Your task to perform on an android device: make emails show in primary in the gmail app Image 0: 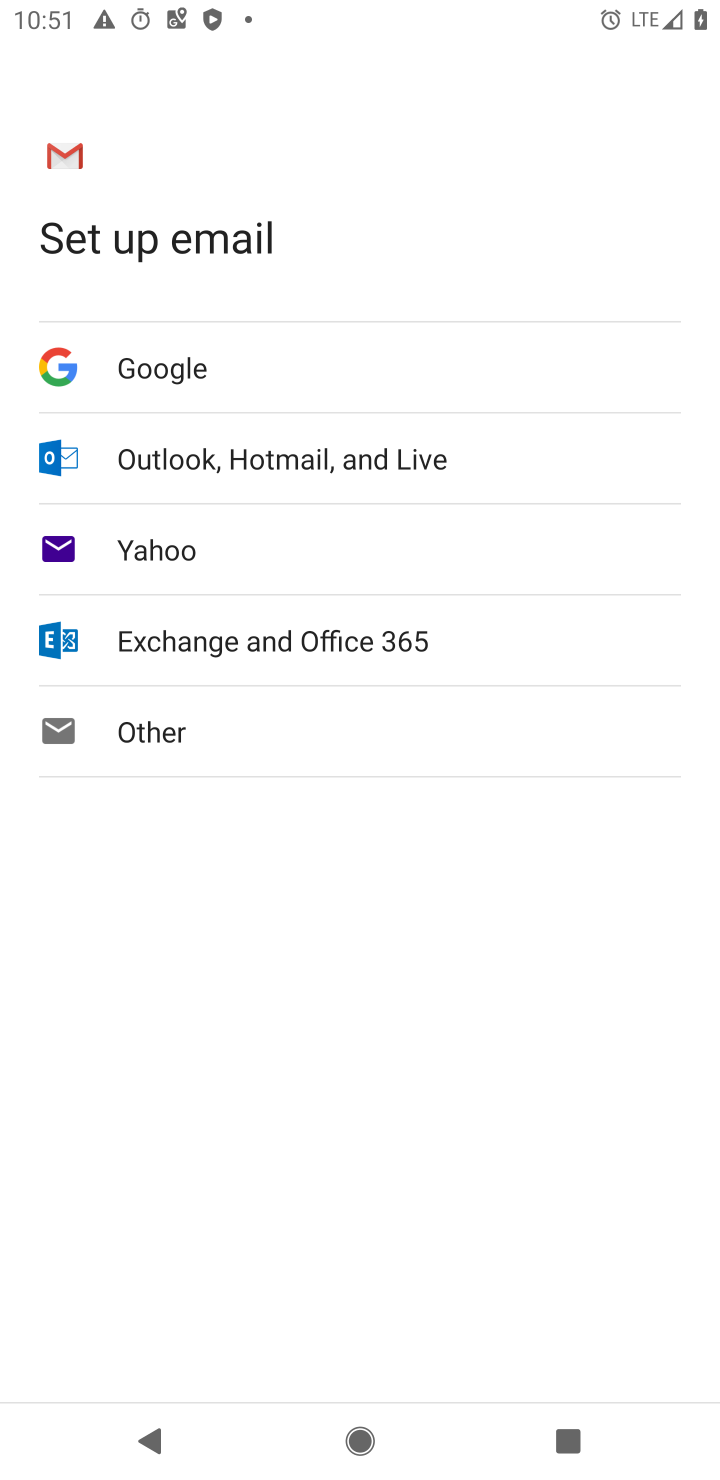
Step 0: press home button
Your task to perform on an android device: make emails show in primary in the gmail app Image 1: 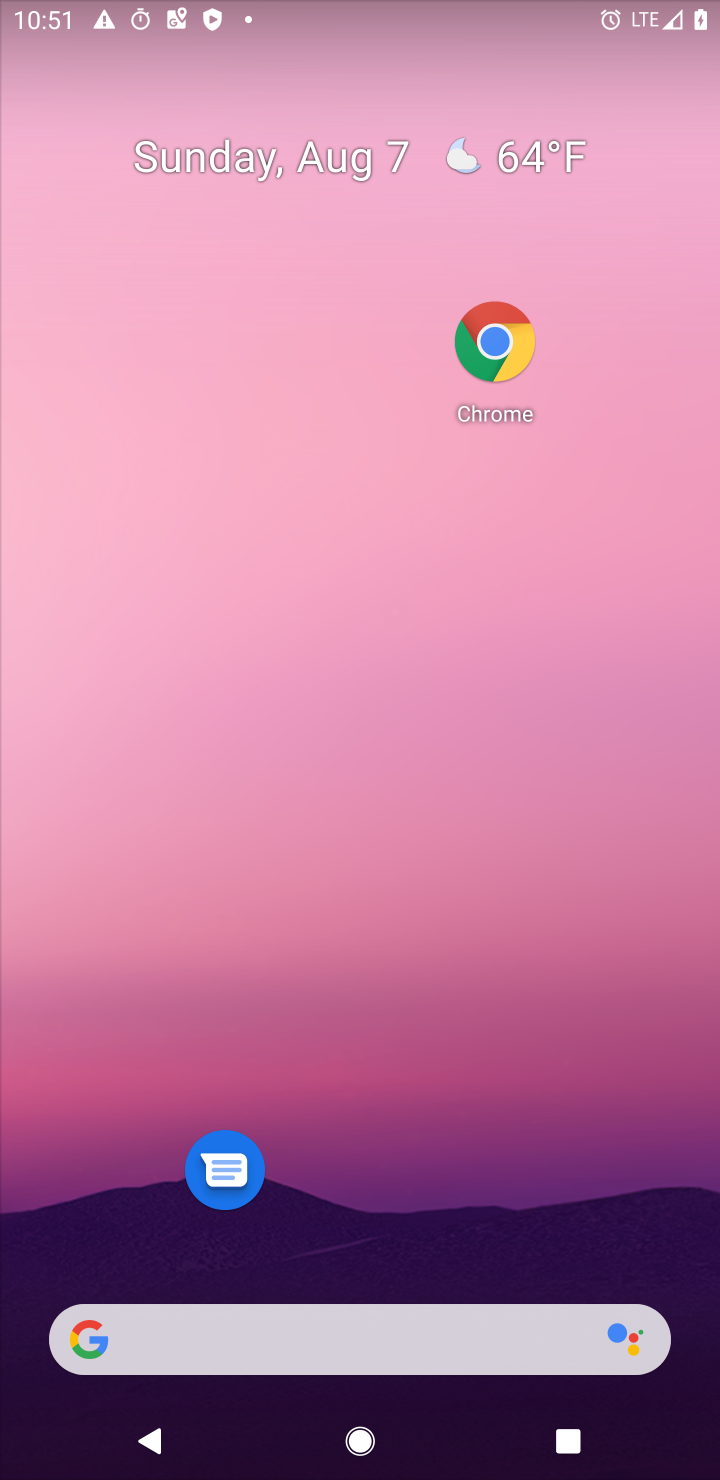
Step 1: drag from (364, 1340) to (441, 38)
Your task to perform on an android device: make emails show in primary in the gmail app Image 2: 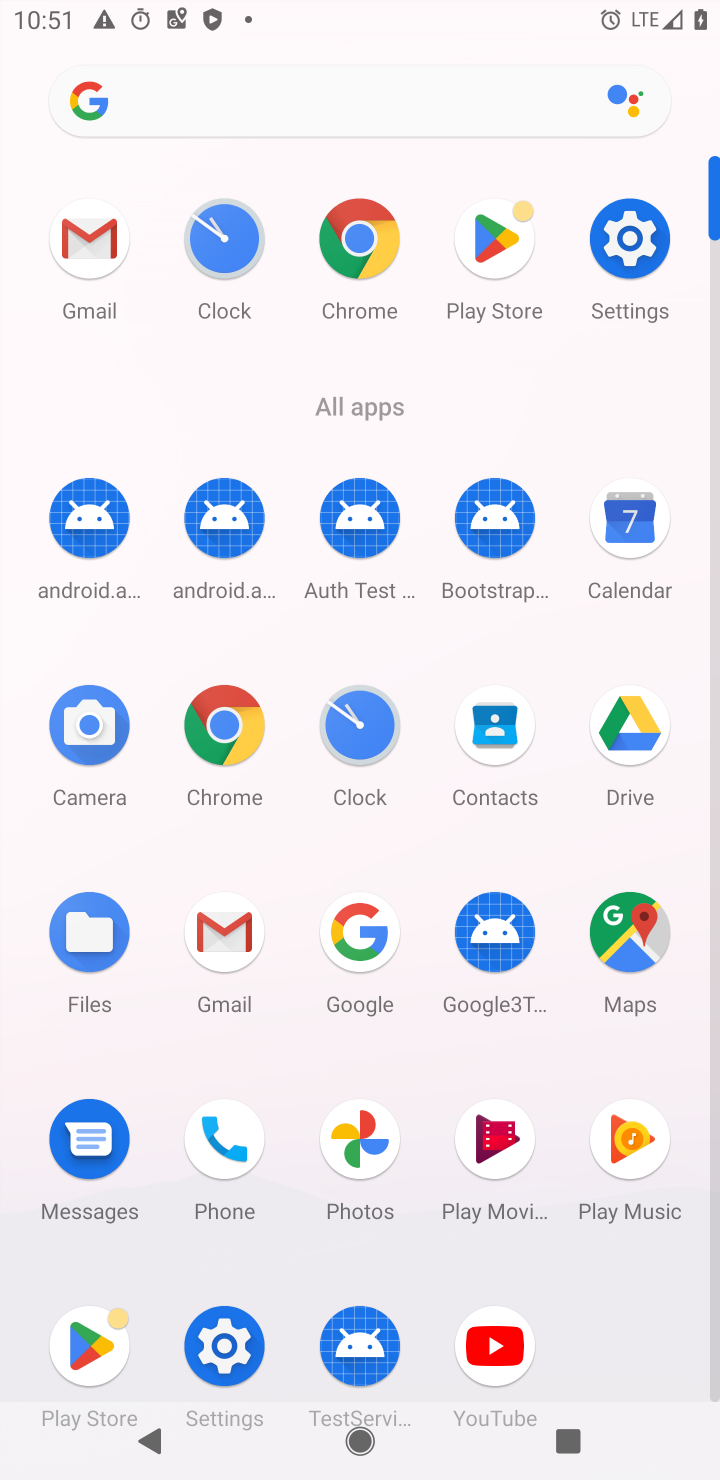
Step 2: click (231, 935)
Your task to perform on an android device: make emails show in primary in the gmail app Image 3: 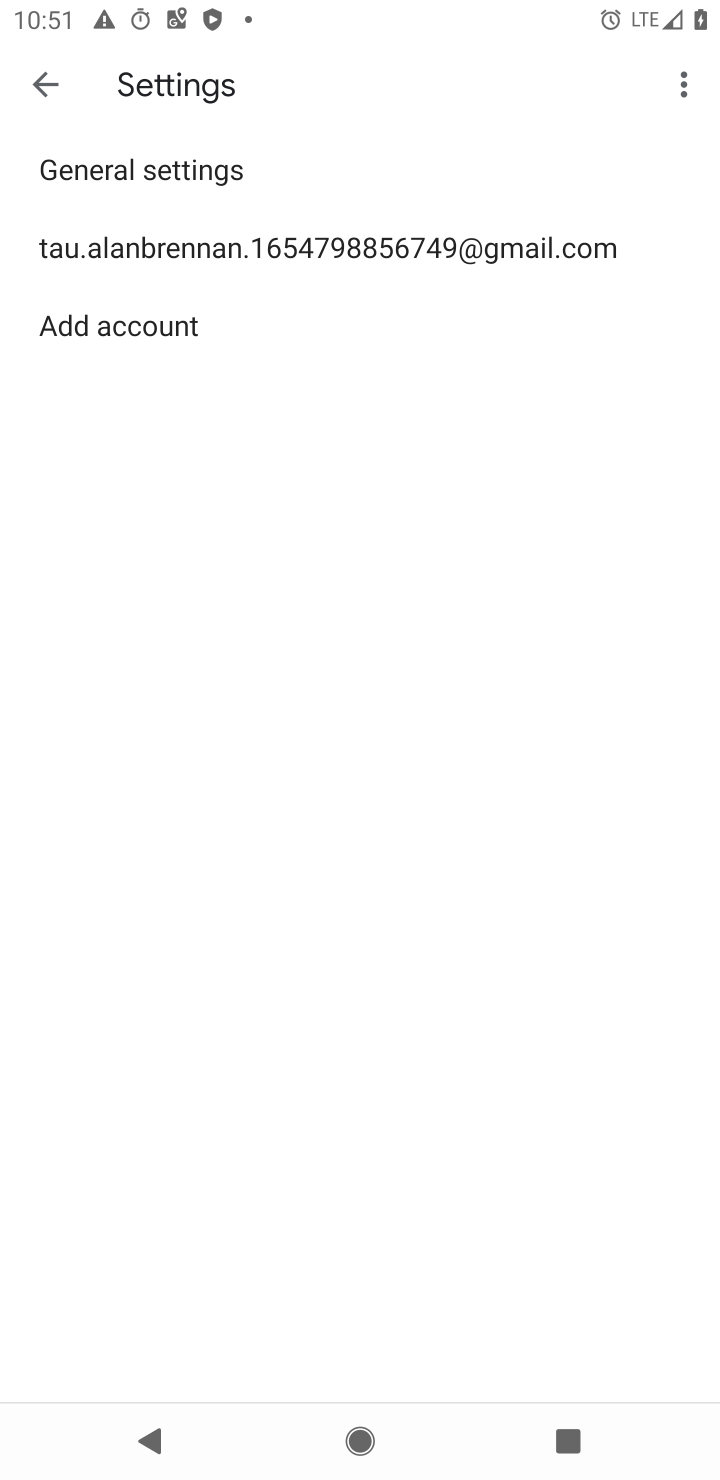
Step 3: click (488, 237)
Your task to perform on an android device: make emails show in primary in the gmail app Image 4: 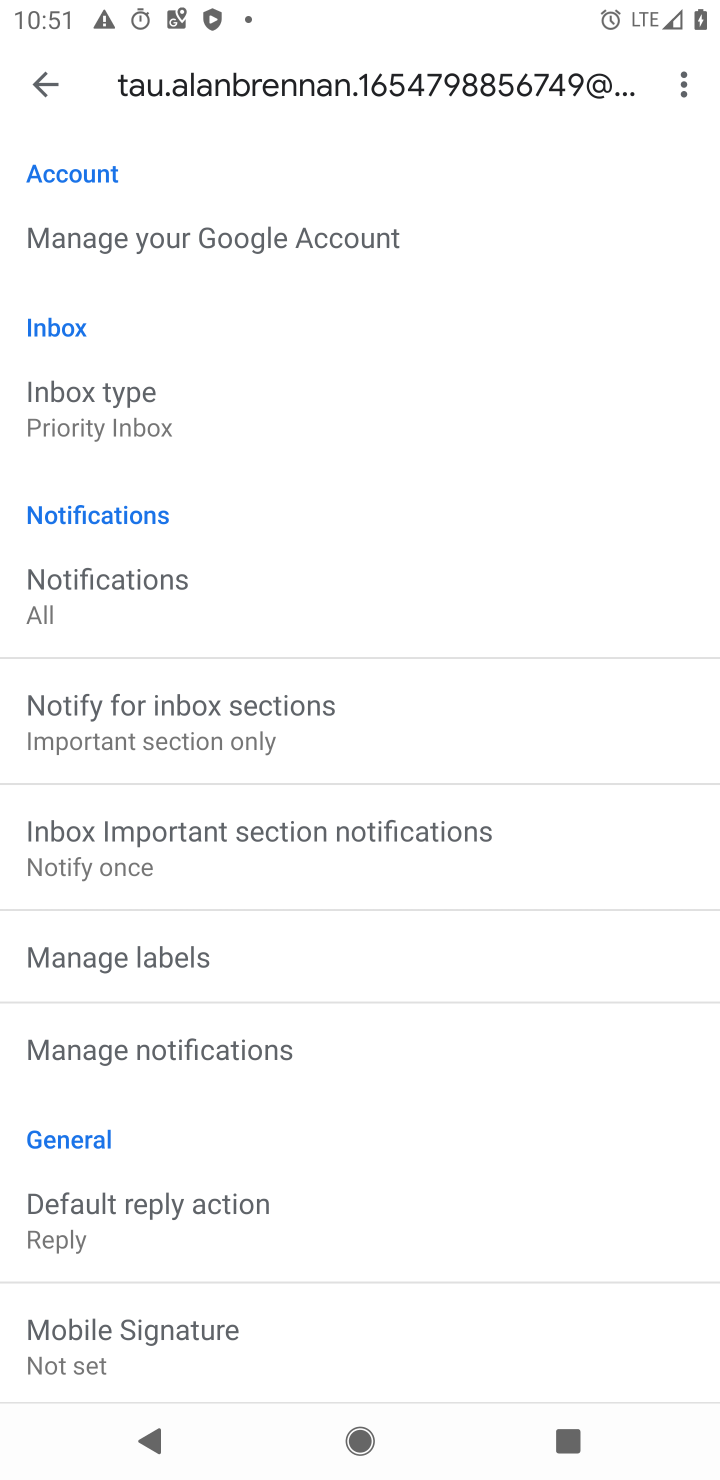
Step 4: click (176, 426)
Your task to perform on an android device: make emails show in primary in the gmail app Image 5: 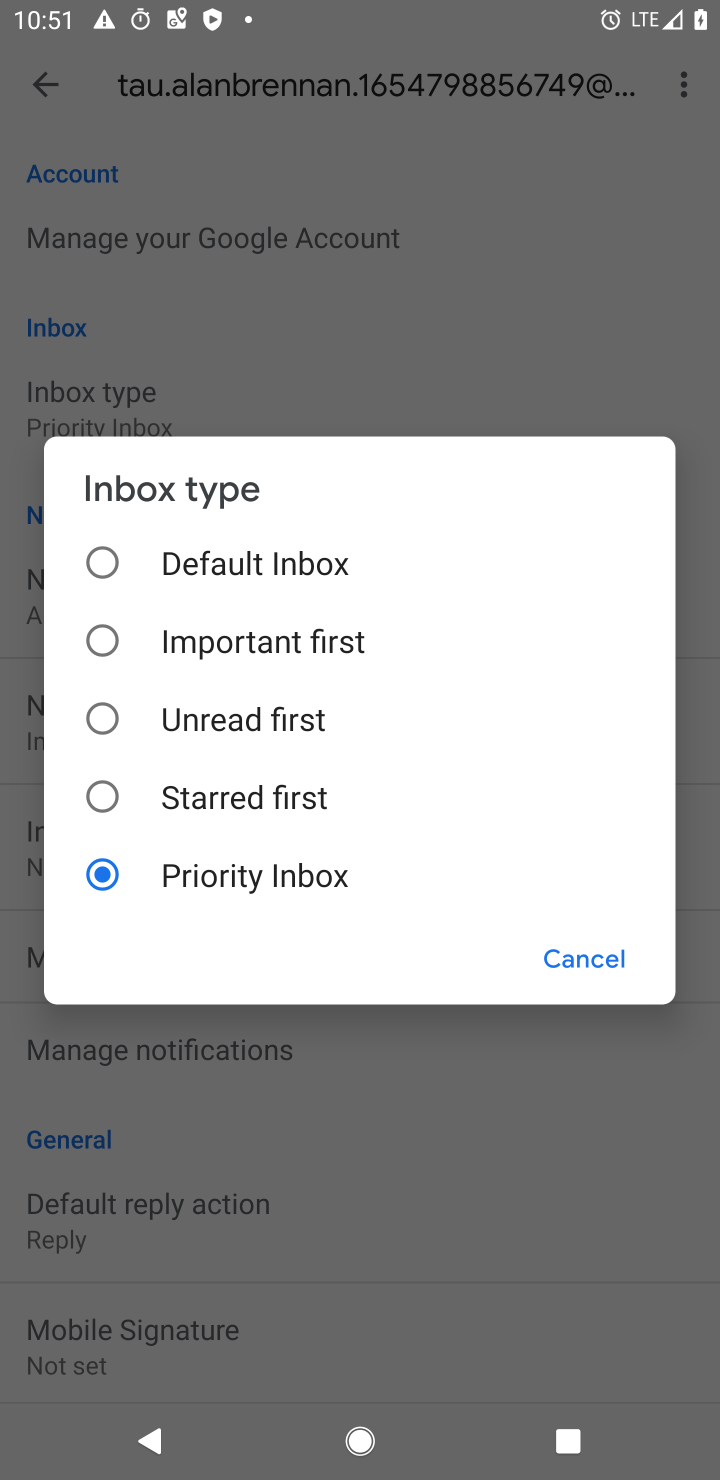
Step 5: click (96, 550)
Your task to perform on an android device: make emails show in primary in the gmail app Image 6: 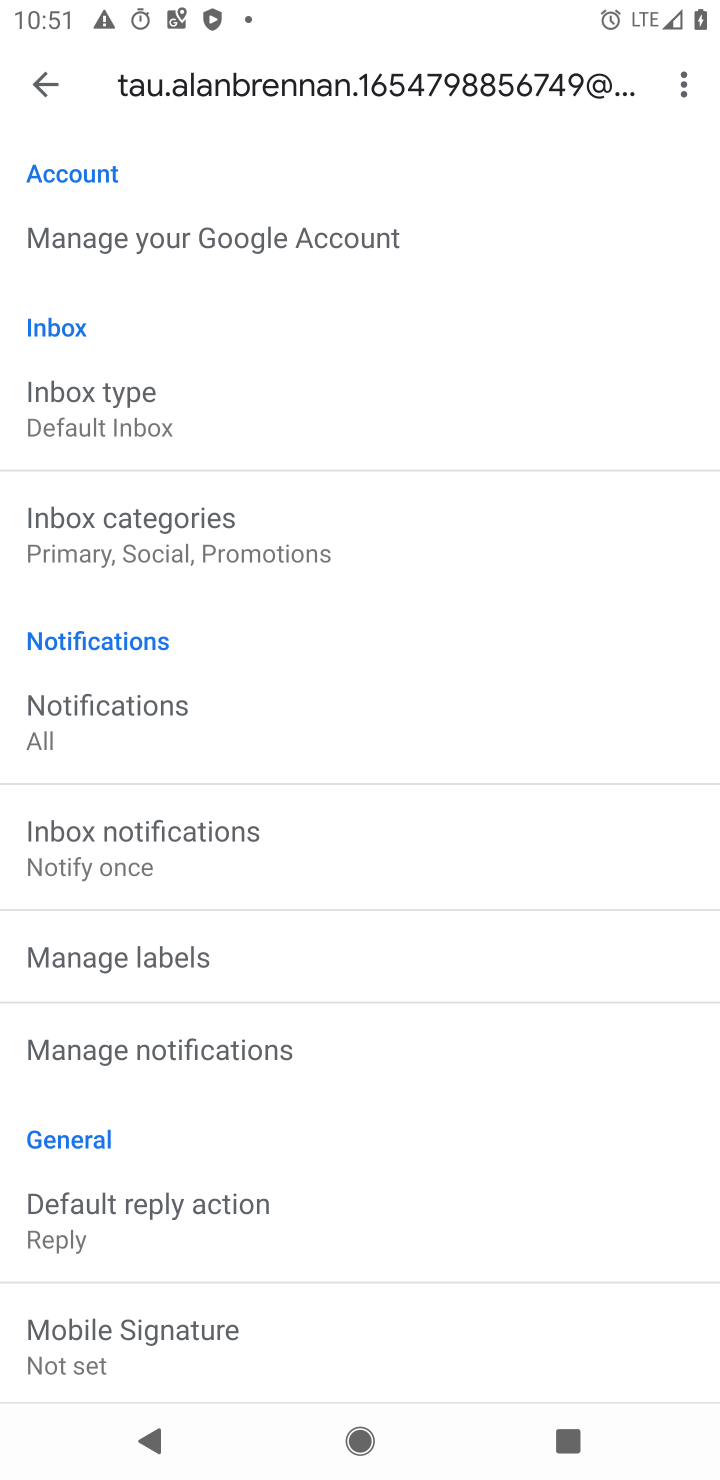
Step 6: task complete